Your task to perform on an android device: Open the map Image 0: 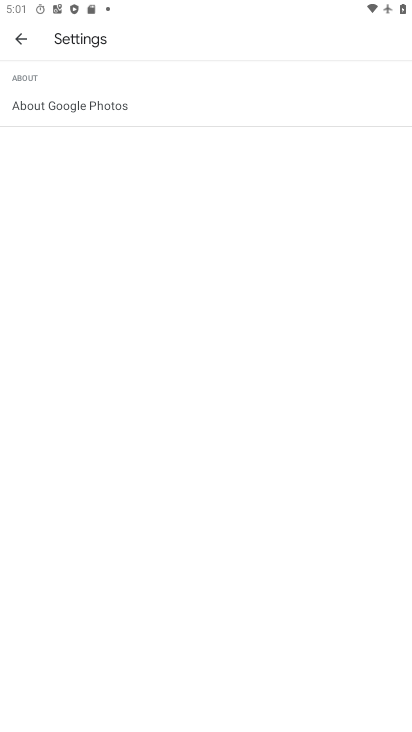
Step 0: press home button
Your task to perform on an android device: Open the map Image 1: 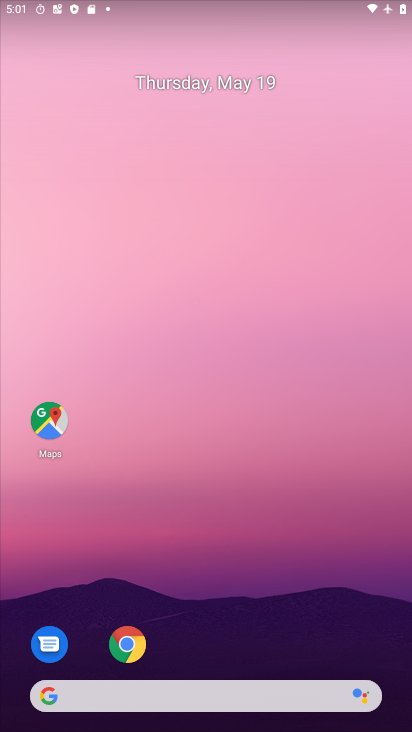
Step 1: click (48, 425)
Your task to perform on an android device: Open the map Image 2: 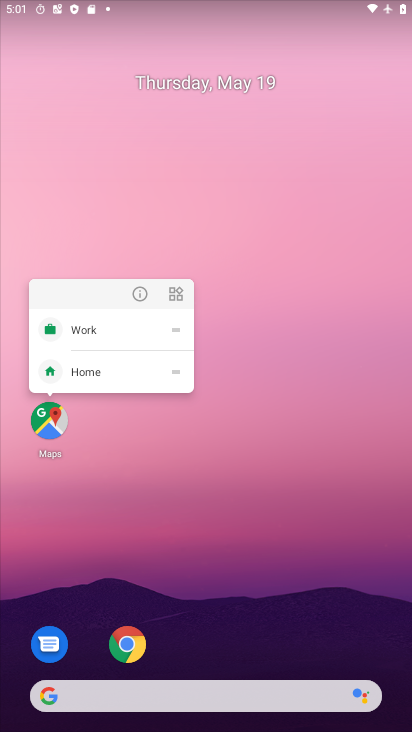
Step 2: click (38, 433)
Your task to perform on an android device: Open the map Image 3: 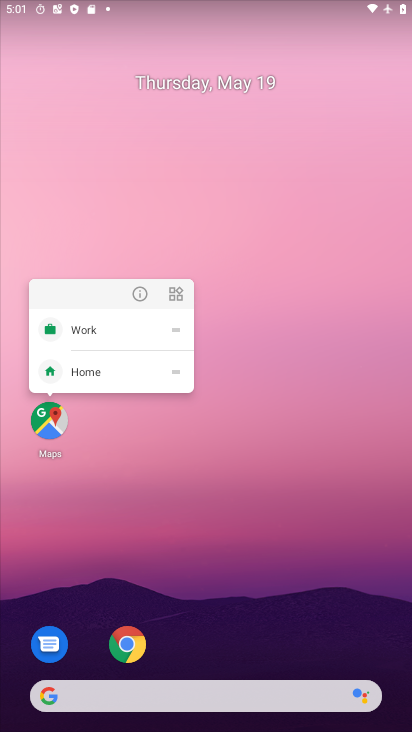
Step 3: click (48, 427)
Your task to perform on an android device: Open the map Image 4: 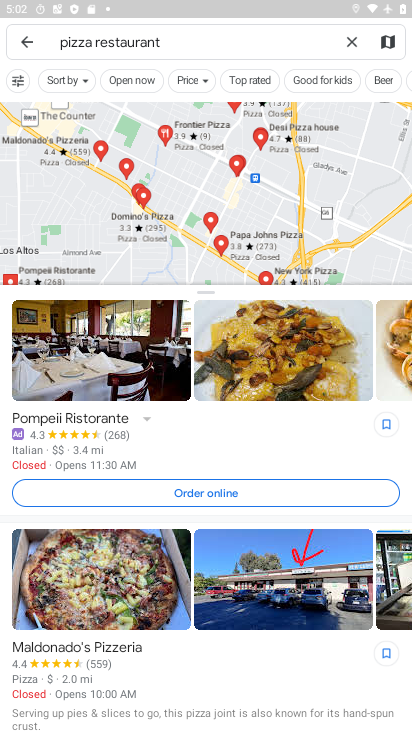
Step 4: click (353, 40)
Your task to perform on an android device: Open the map Image 5: 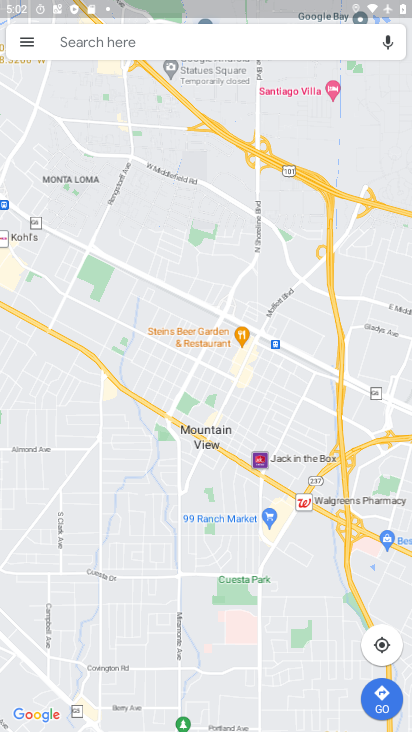
Step 5: task complete